Your task to perform on an android device: check battery use Image 0: 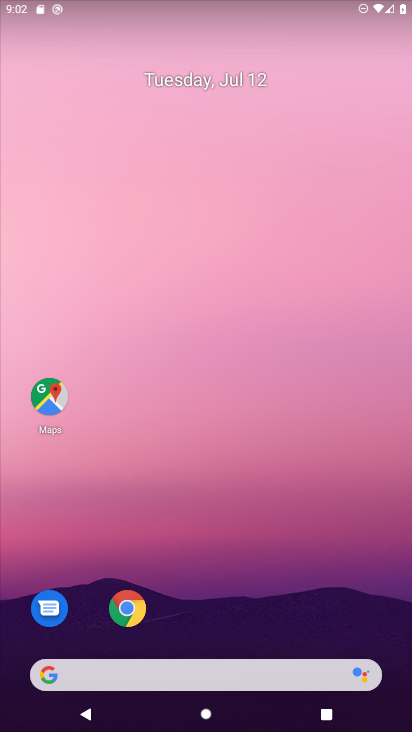
Step 0: drag from (239, 13) to (262, 524)
Your task to perform on an android device: check battery use Image 1: 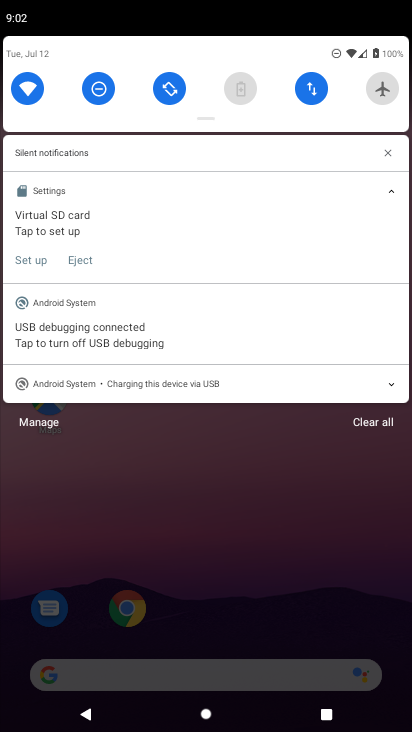
Step 1: click (235, 88)
Your task to perform on an android device: check battery use Image 2: 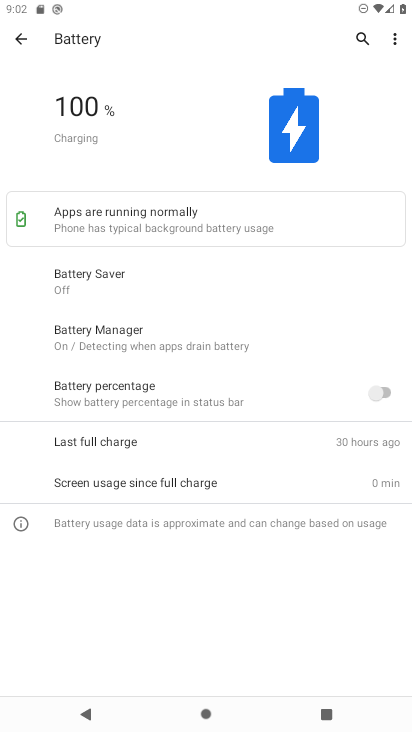
Step 2: click (390, 35)
Your task to perform on an android device: check battery use Image 3: 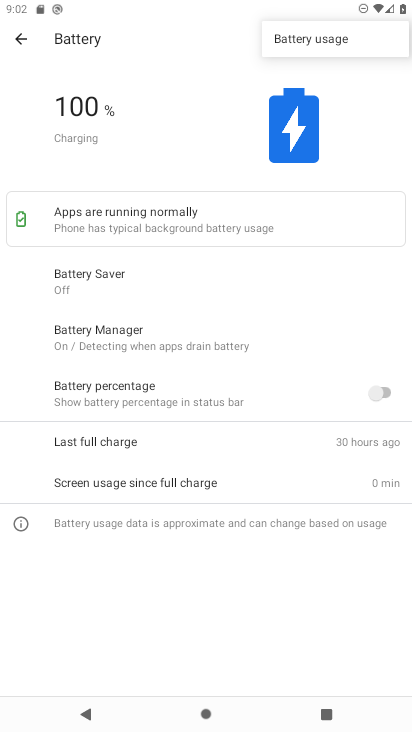
Step 3: click (390, 35)
Your task to perform on an android device: check battery use Image 4: 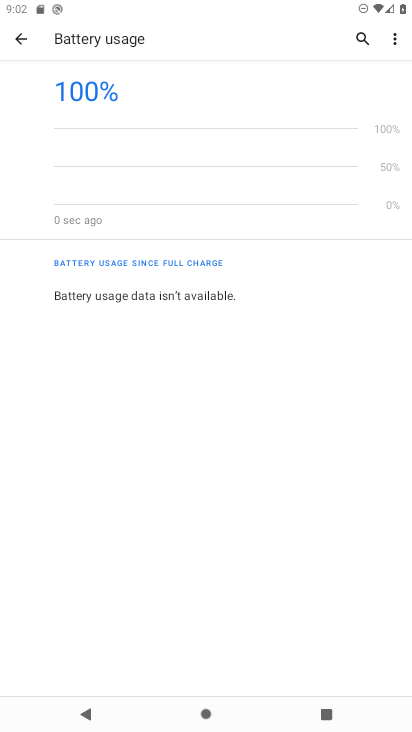
Step 4: task complete